Your task to perform on an android device: Search for "apple airpods" on newegg, select the first entry, and add it to the cart. Image 0: 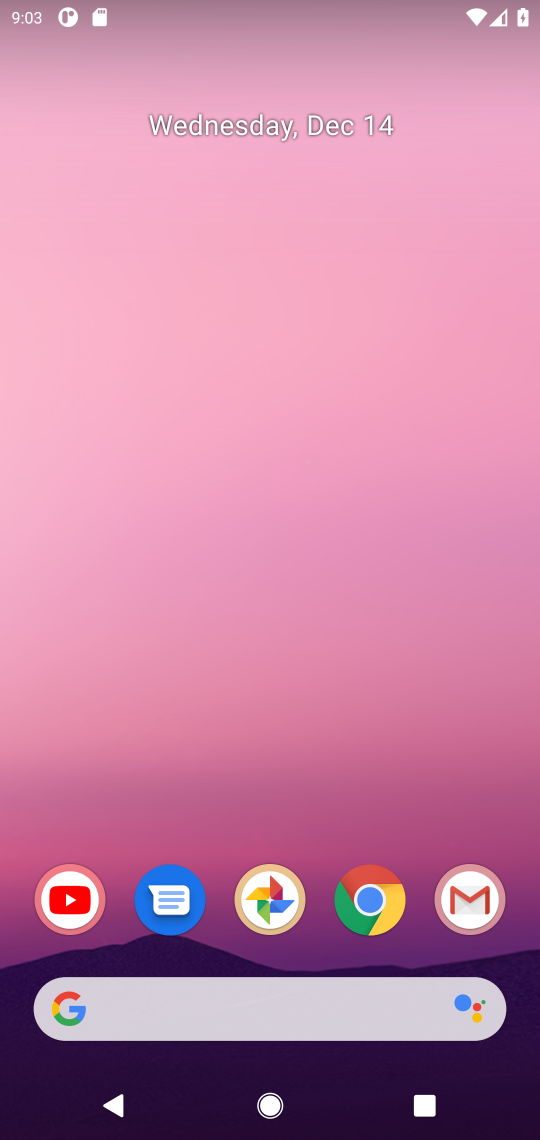
Step 0: click (208, 1004)
Your task to perform on an android device: Search for "apple airpods" on newegg, select the first entry, and add it to the cart. Image 1: 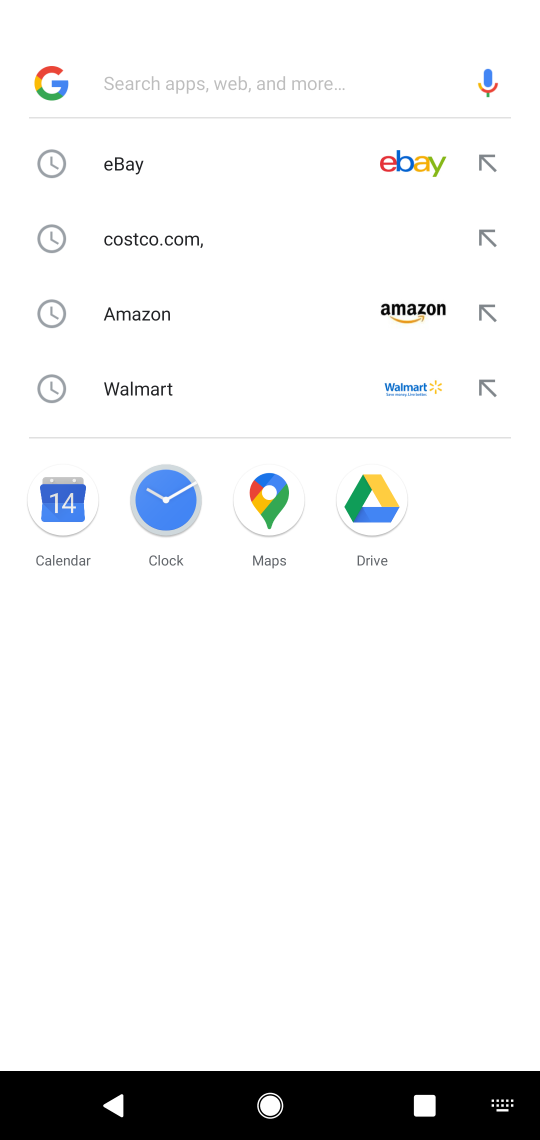
Step 1: type "newegg"
Your task to perform on an android device: Search for "apple airpods" on newegg, select the first entry, and add it to the cart. Image 2: 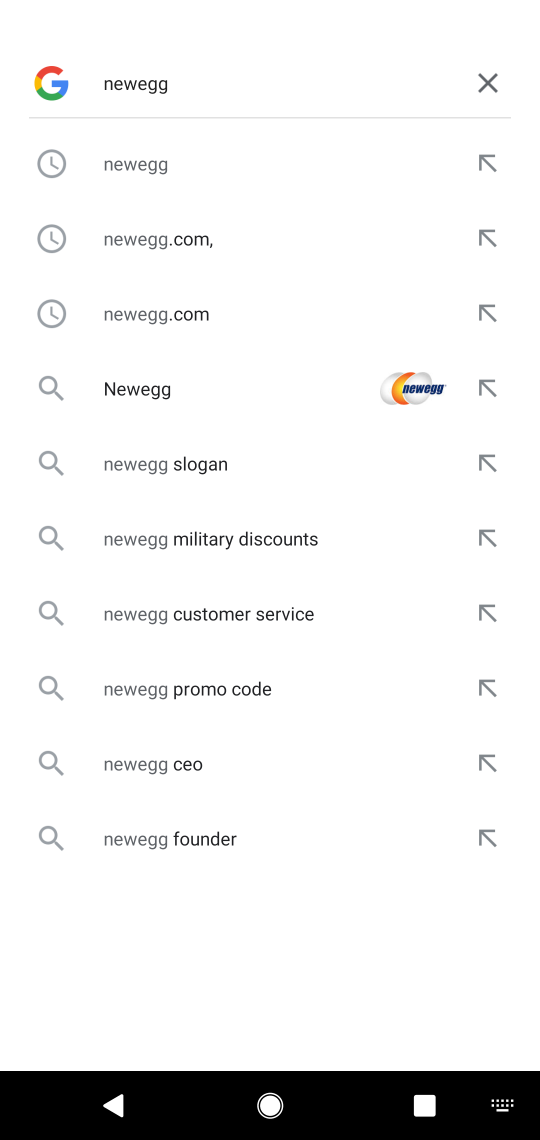
Step 2: click (153, 389)
Your task to perform on an android device: Search for "apple airpods" on newegg, select the first entry, and add it to the cart. Image 3: 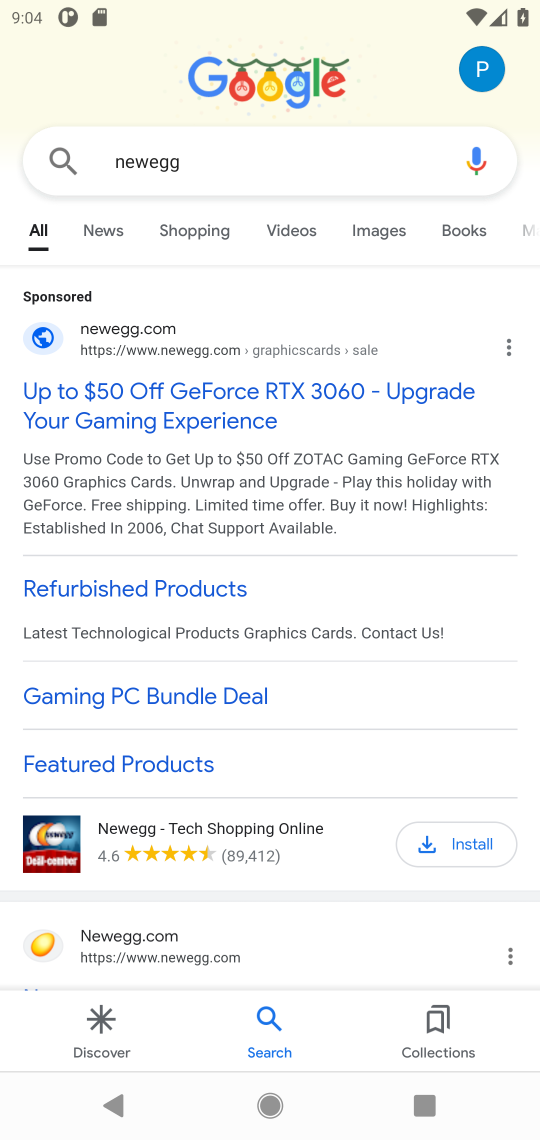
Step 3: drag from (322, 836) to (329, 200)
Your task to perform on an android device: Search for "apple airpods" on newegg, select the first entry, and add it to the cart. Image 4: 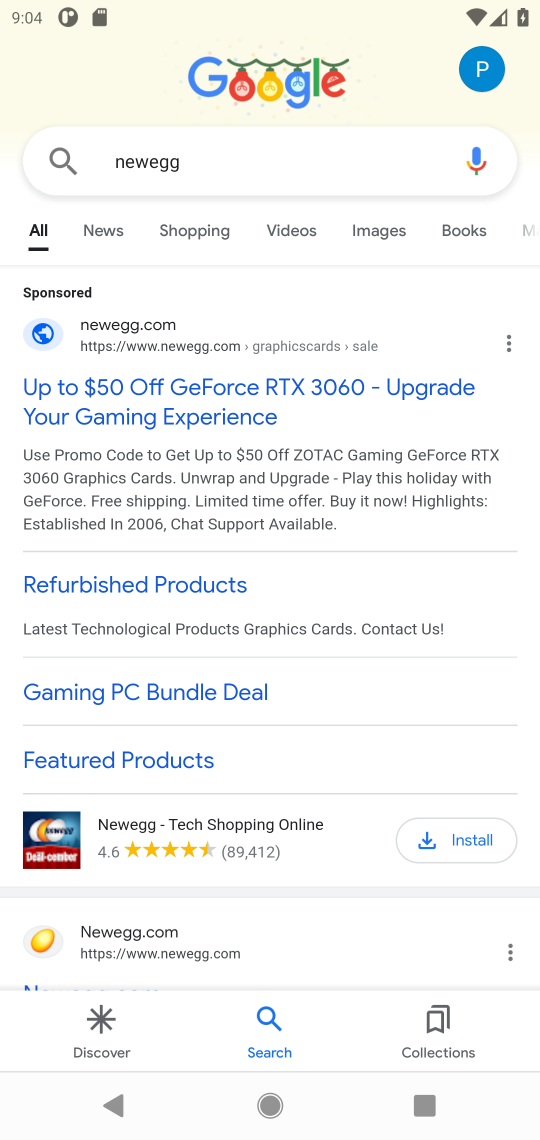
Step 4: drag from (238, 924) to (181, 487)
Your task to perform on an android device: Search for "apple airpods" on newegg, select the first entry, and add it to the cart. Image 5: 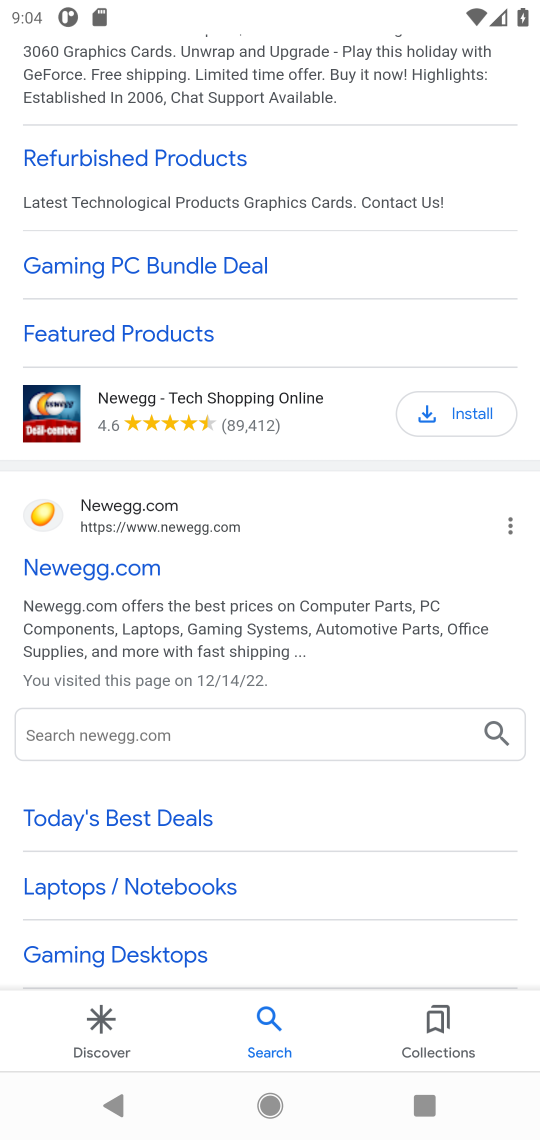
Step 5: click (137, 906)
Your task to perform on an android device: Search for "apple airpods" on newegg, select the first entry, and add it to the cart. Image 6: 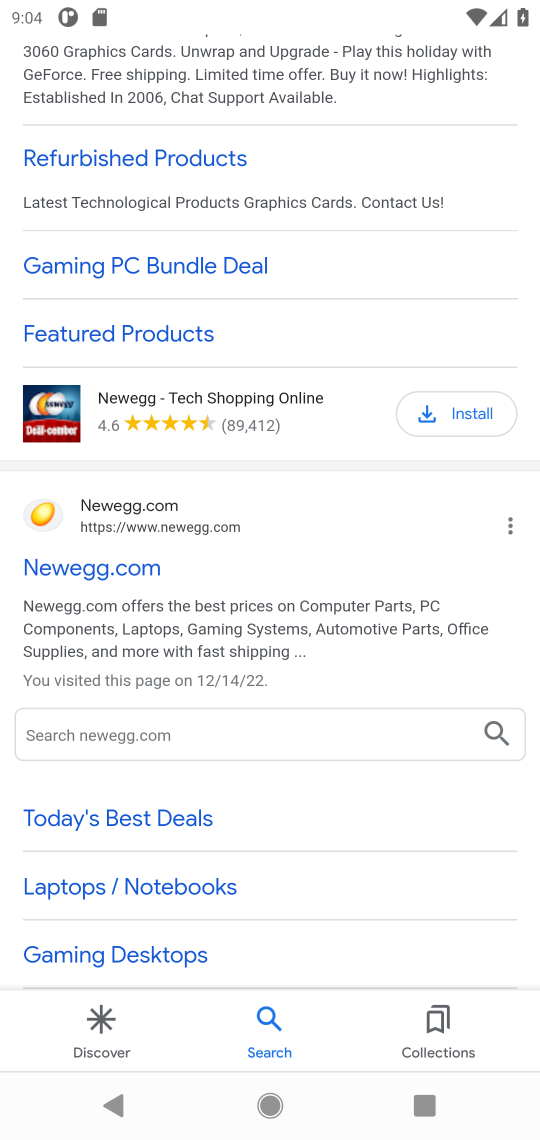
Step 6: click (120, 516)
Your task to perform on an android device: Search for "apple airpods" on newegg, select the first entry, and add it to the cart. Image 7: 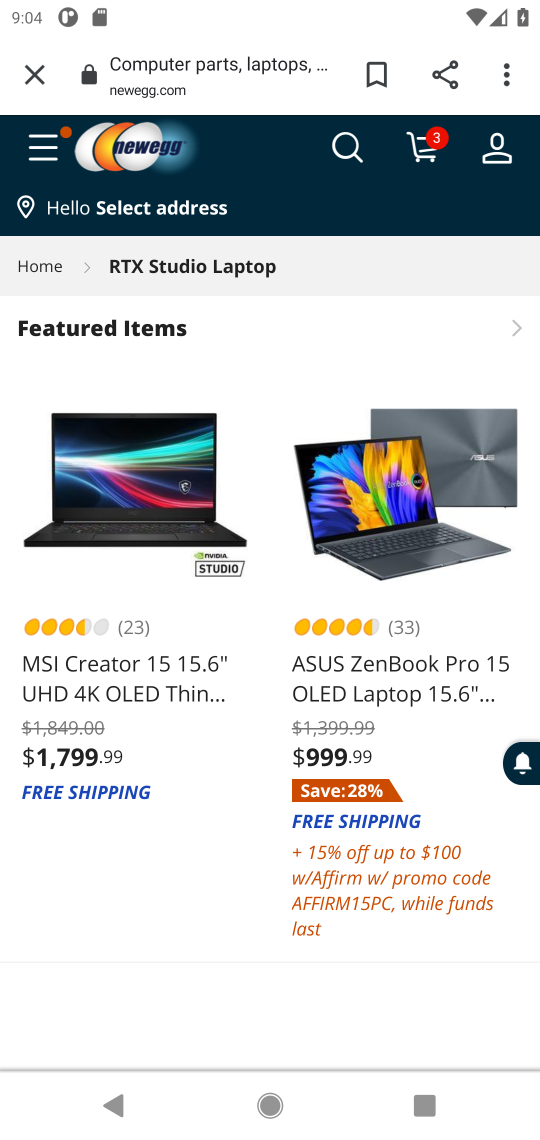
Step 7: click (342, 146)
Your task to perform on an android device: Search for "apple airpods" on newegg, select the first entry, and add it to the cart. Image 8: 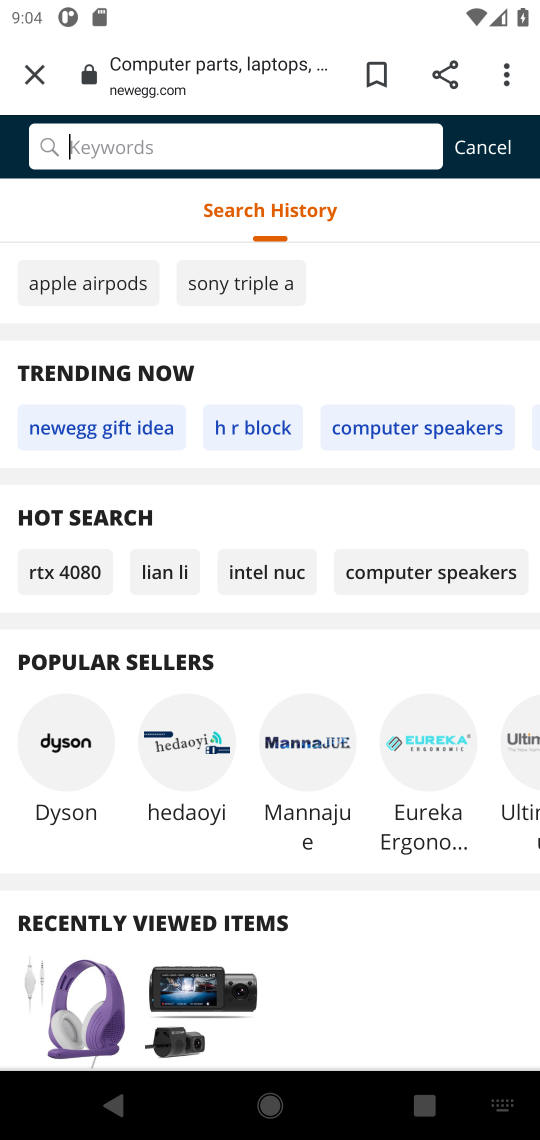
Step 8: type ""apple airpods""
Your task to perform on an android device: Search for "apple airpods" on newegg, select the first entry, and add it to the cart. Image 9: 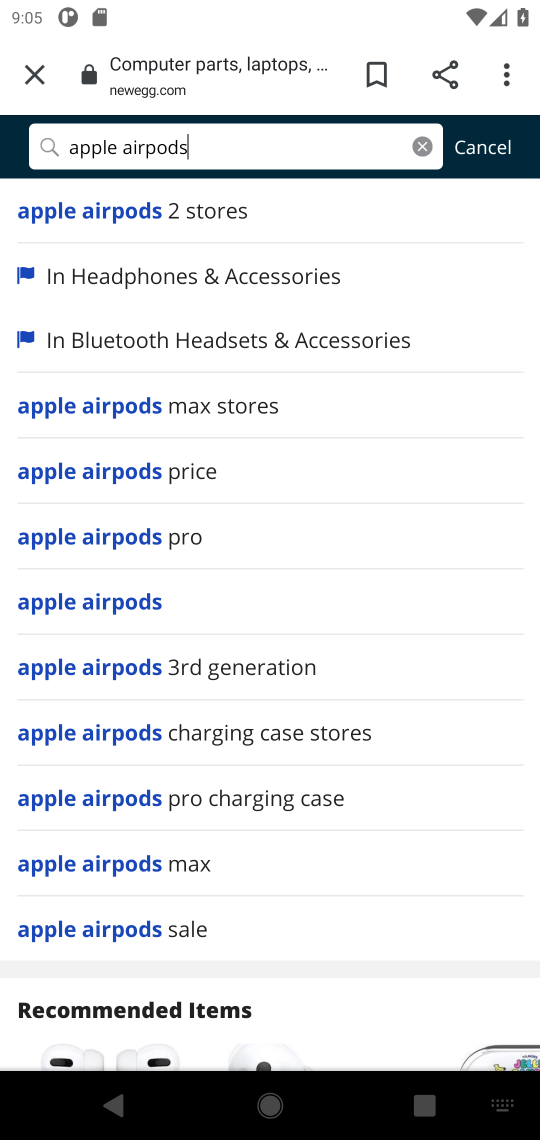
Step 9: click (103, 611)
Your task to perform on an android device: Search for "apple airpods" on newegg, select the first entry, and add it to the cart. Image 10: 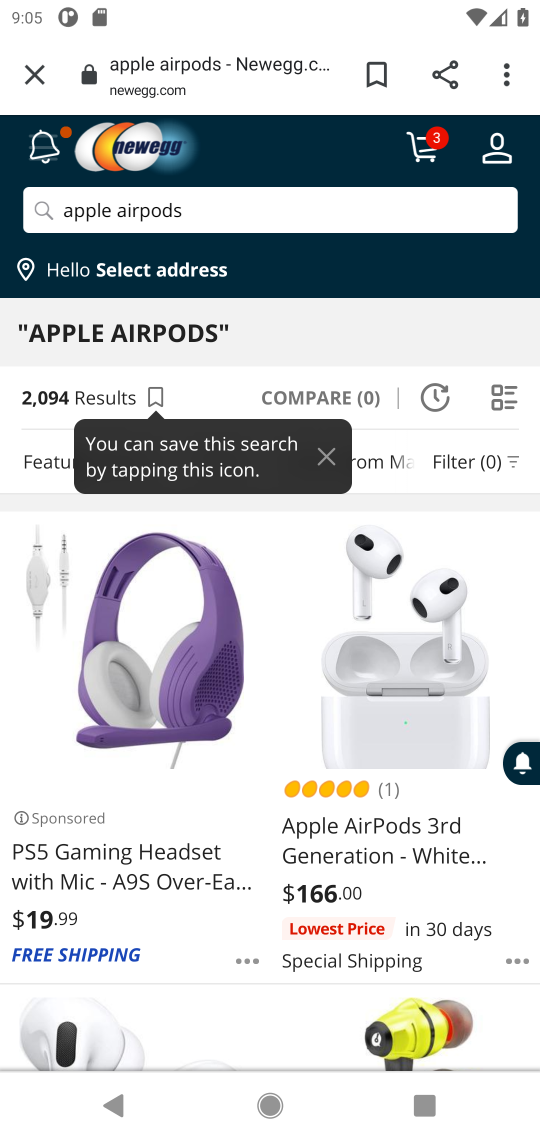
Step 10: click (107, 775)
Your task to perform on an android device: Search for "apple airpods" on newegg, select the first entry, and add it to the cart. Image 11: 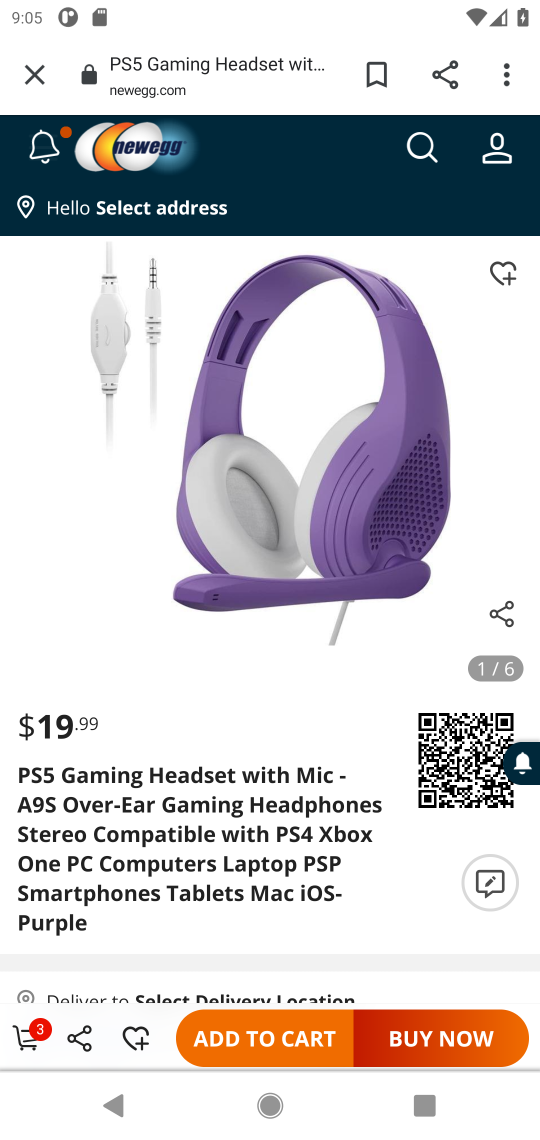
Step 11: click (275, 1020)
Your task to perform on an android device: Search for "apple airpods" on newegg, select the first entry, and add it to the cart. Image 12: 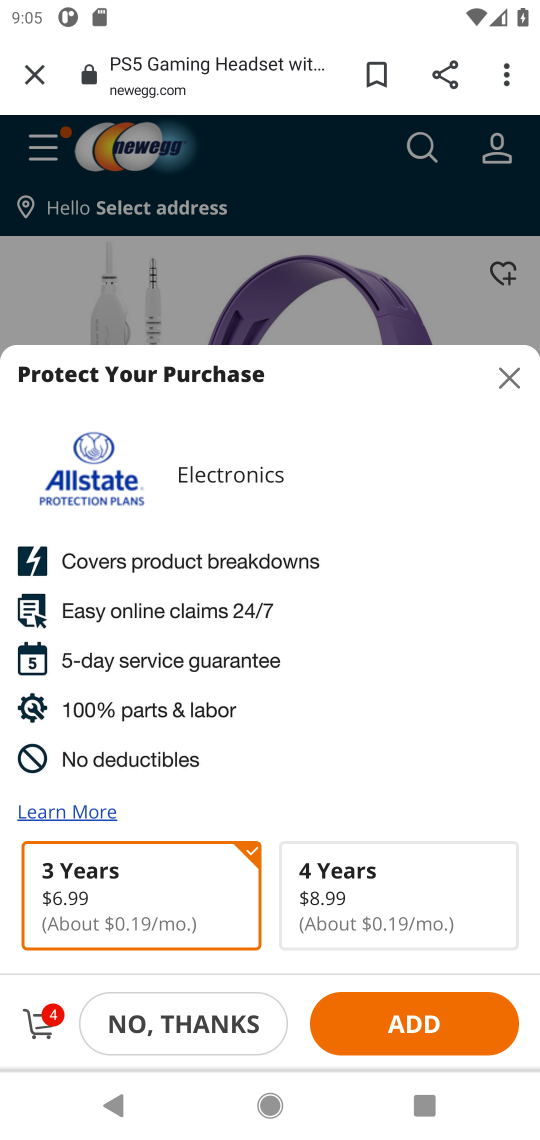
Step 12: click (185, 1008)
Your task to perform on an android device: Search for "apple airpods" on newegg, select the first entry, and add it to the cart. Image 13: 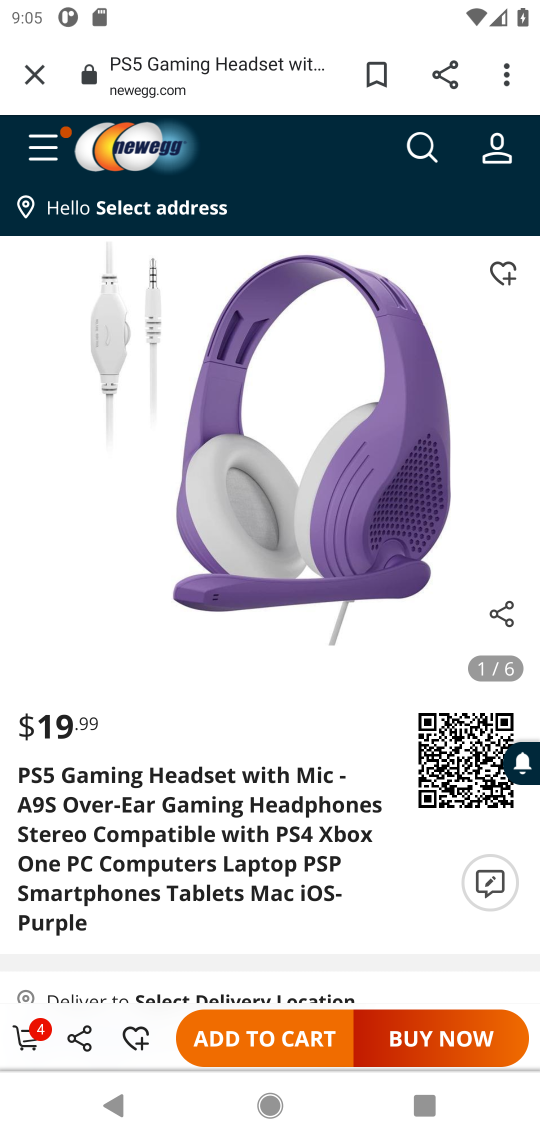
Step 13: task complete